Your task to perform on an android device: Toggle the flashlight Image 0: 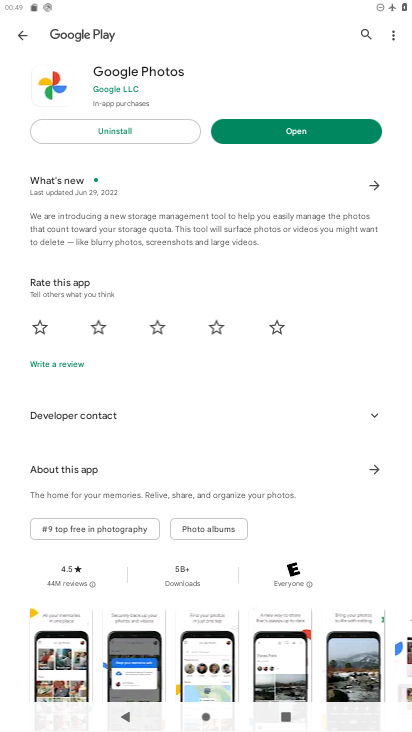
Step 0: press home button
Your task to perform on an android device: Toggle the flashlight Image 1: 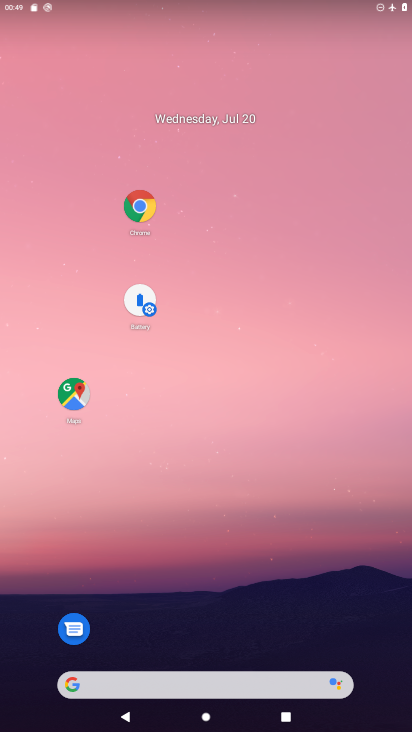
Step 1: drag from (195, 564) to (230, 1)
Your task to perform on an android device: Toggle the flashlight Image 2: 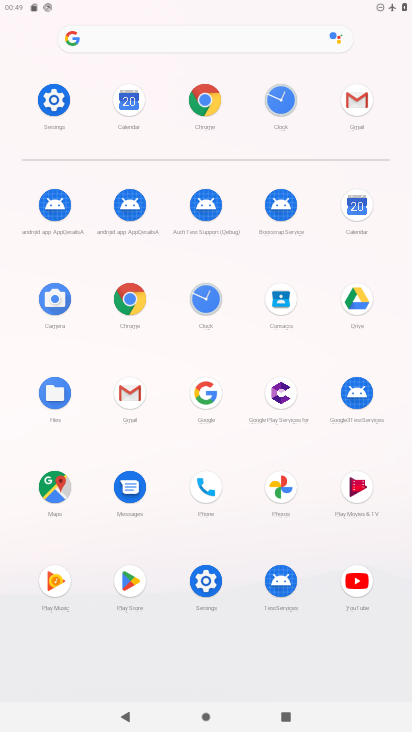
Step 2: click (206, 589)
Your task to perform on an android device: Toggle the flashlight Image 3: 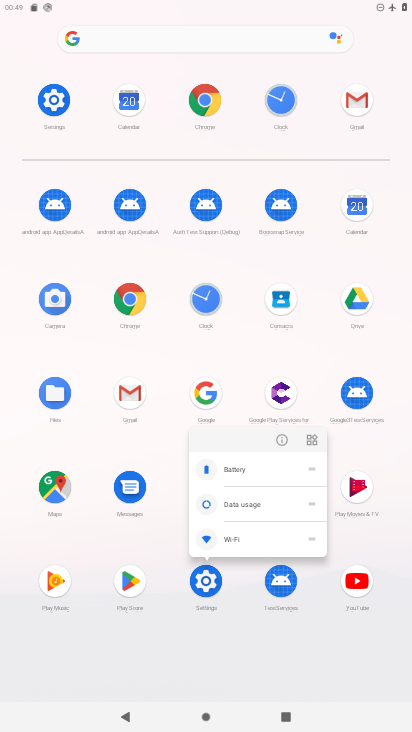
Step 3: click (277, 438)
Your task to perform on an android device: Toggle the flashlight Image 4: 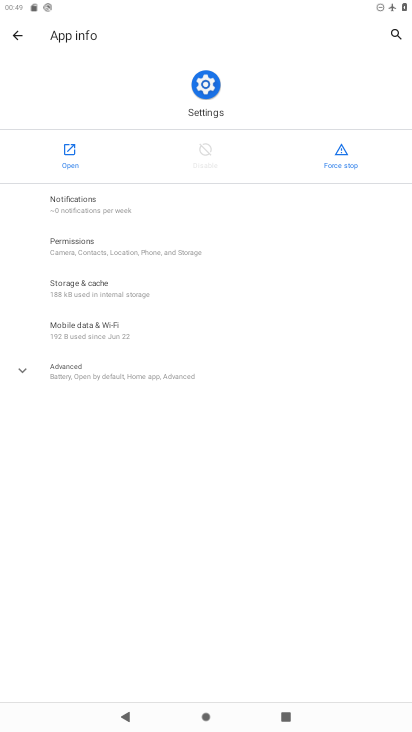
Step 4: click (61, 147)
Your task to perform on an android device: Toggle the flashlight Image 5: 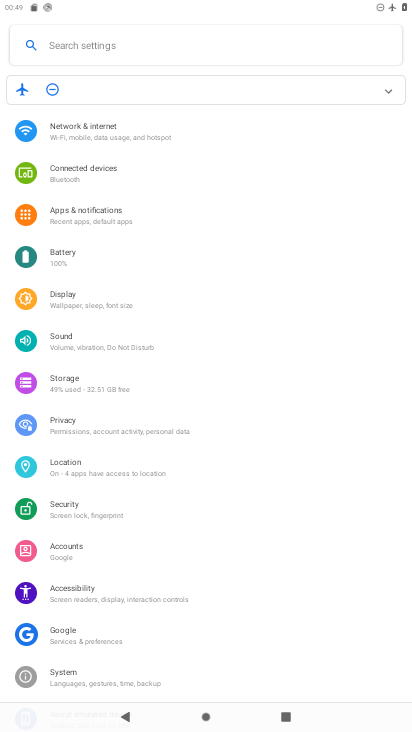
Step 5: click (108, 46)
Your task to perform on an android device: Toggle the flashlight Image 6: 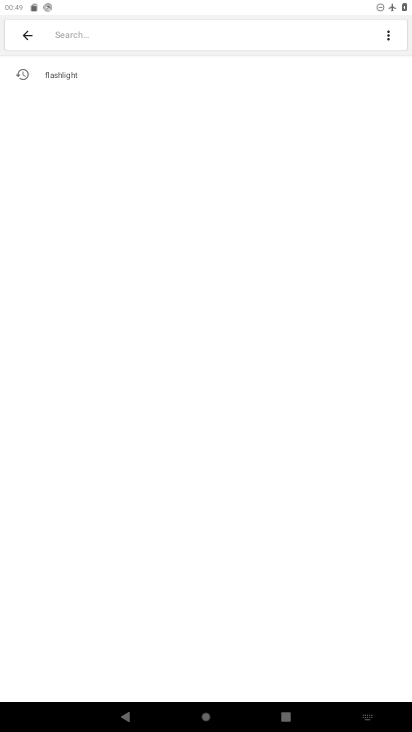
Step 6: click (68, 74)
Your task to perform on an android device: Toggle the flashlight Image 7: 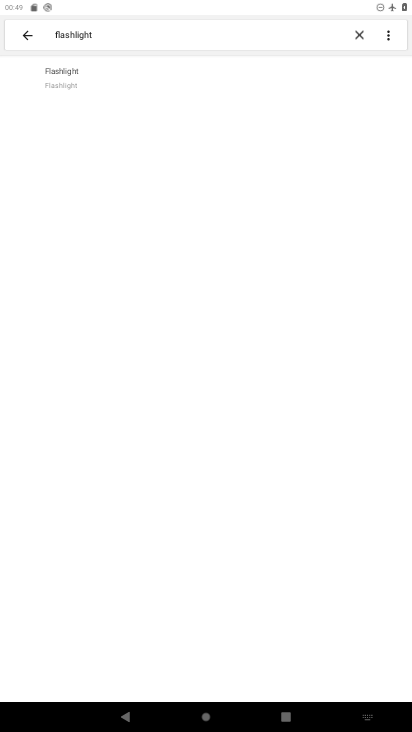
Step 7: task complete